Your task to perform on an android device: Check out the top rated books on Goodreads. Image 0: 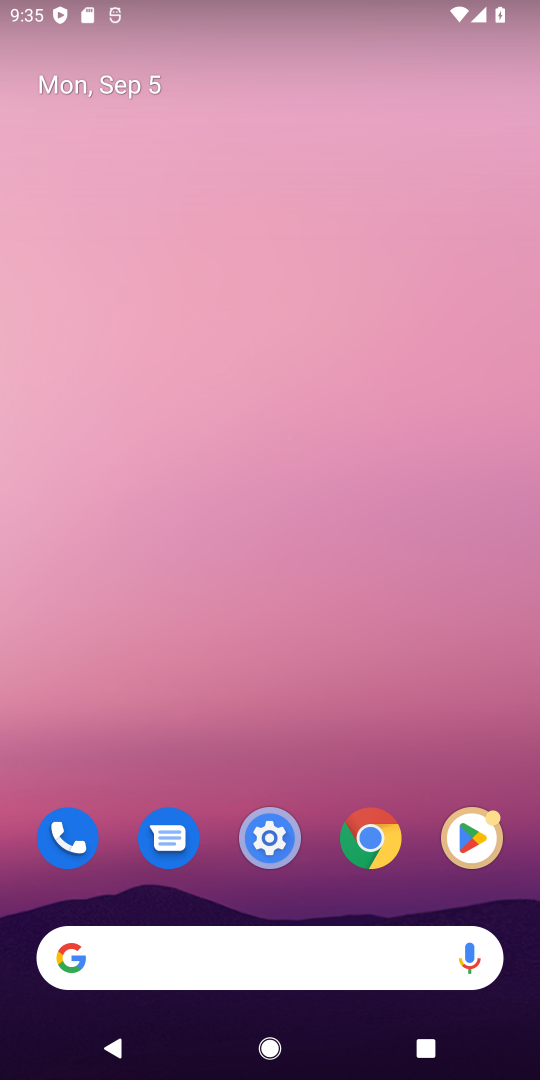
Step 0: click (285, 956)
Your task to perform on an android device: Check out the top rated books on Goodreads. Image 1: 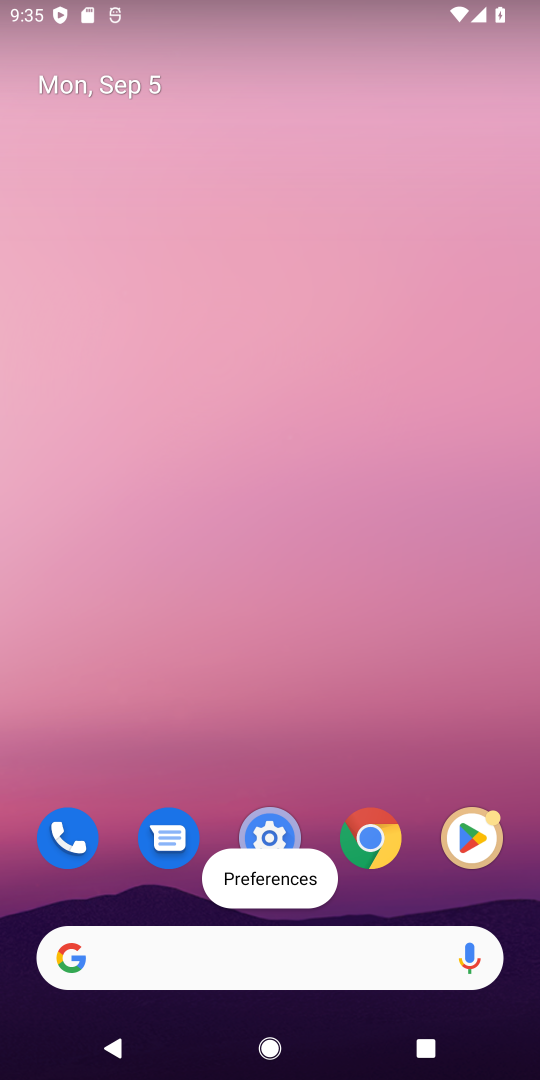
Step 1: click (284, 956)
Your task to perform on an android device: Check out the top rated books on Goodreads. Image 2: 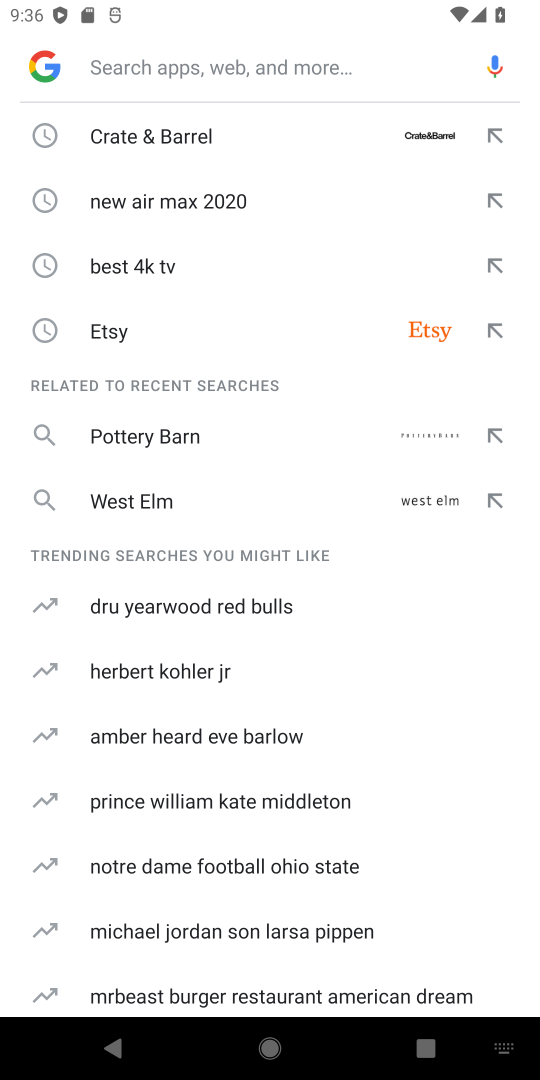
Step 2: type "Goodreads"
Your task to perform on an android device: Check out the top rated books on Goodreads. Image 3: 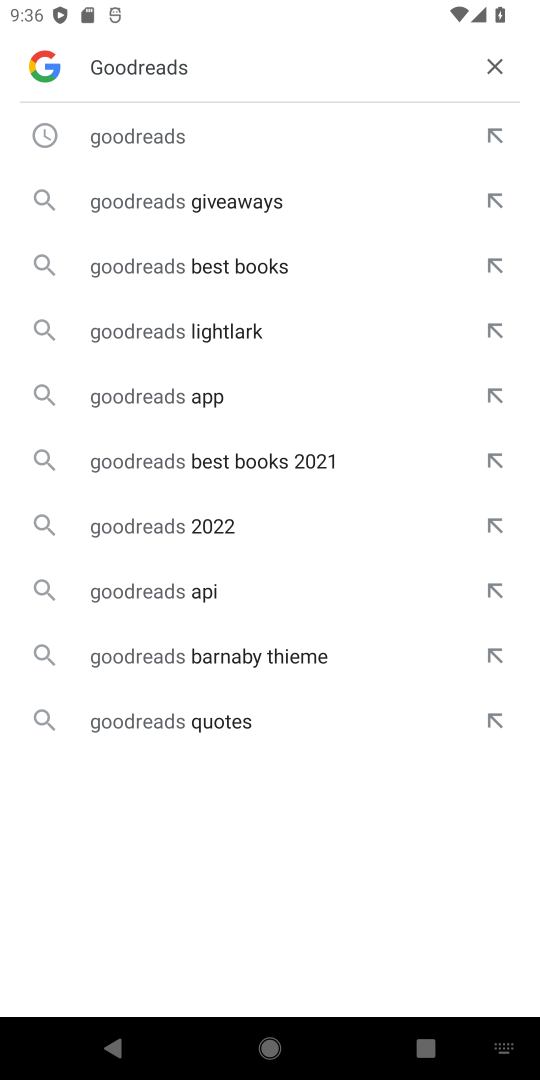
Step 3: click (107, 149)
Your task to perform on an android device: Check out the top rated books on Goodreads. Image 4: 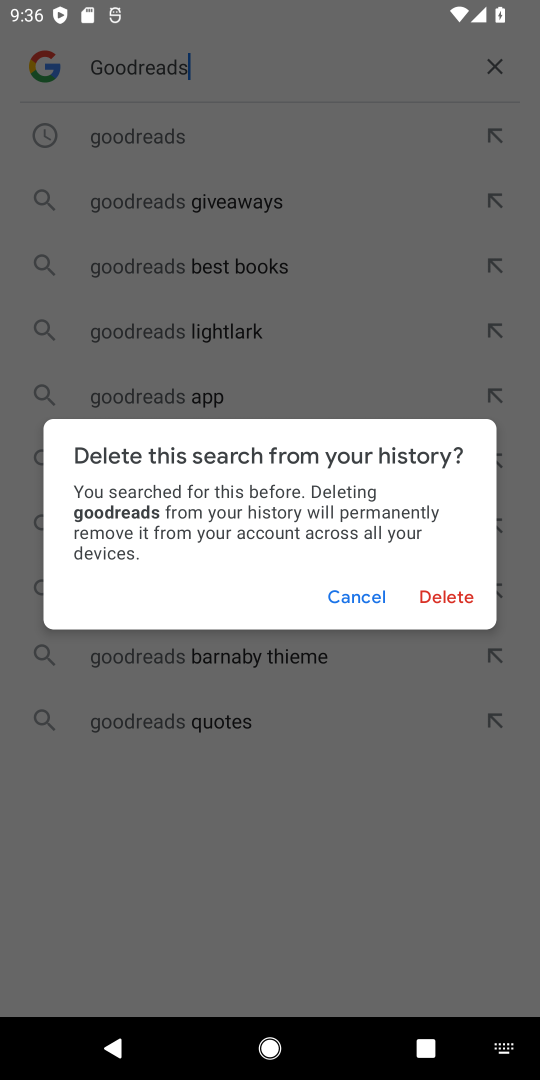
Step 4: click (375, 588)
Your task to perform on an android device: Check out the top rated books on Goodreads. Image 5: 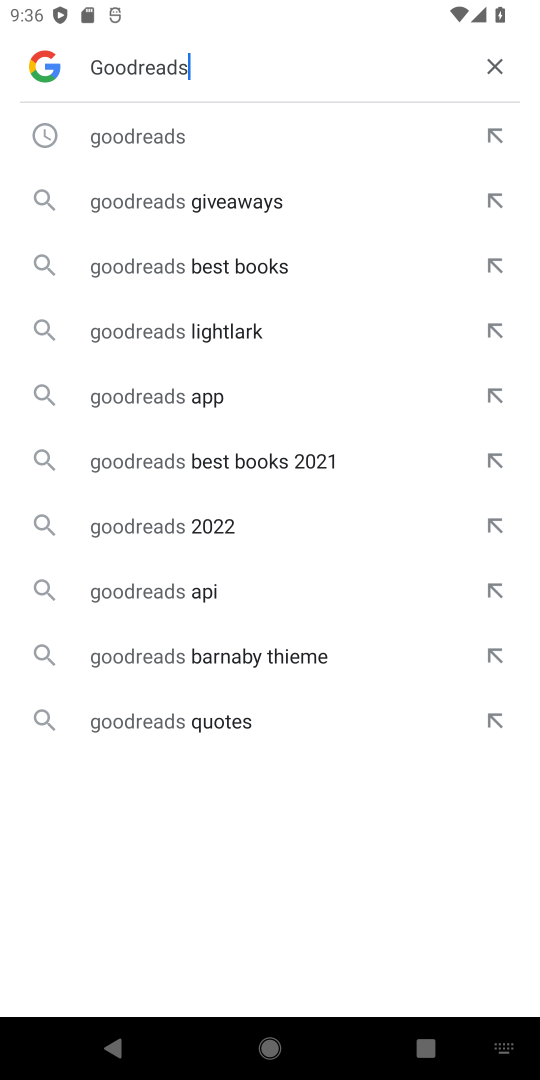
Step 5: click (180, 124)
Your task to perform on an android device: Check out the top rated books on Goodreads. Image 6: 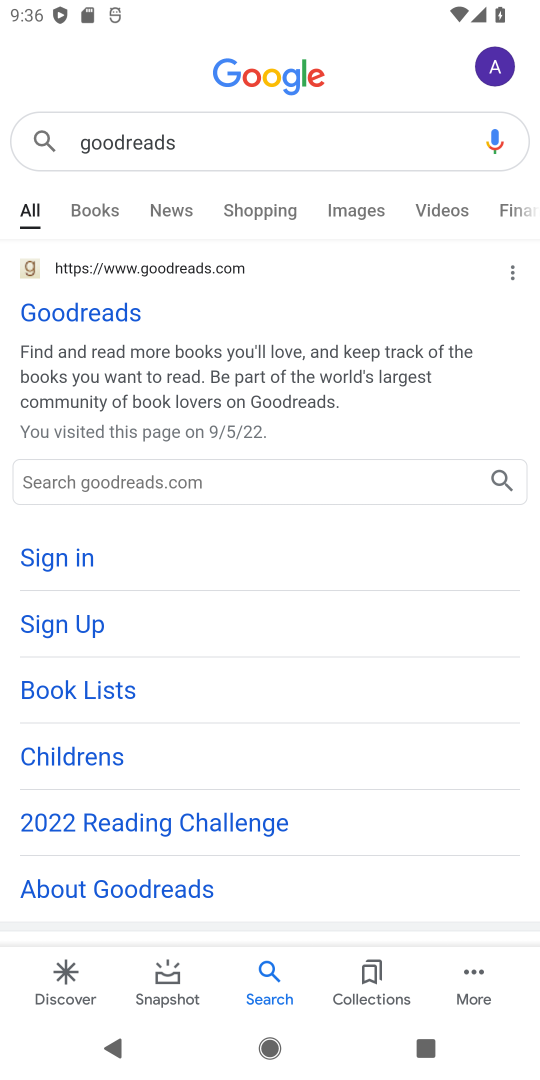
Step 6: click (88, 320)
Your task to perform on an android device: Check out the top rated books on Goodreads. Image 7: 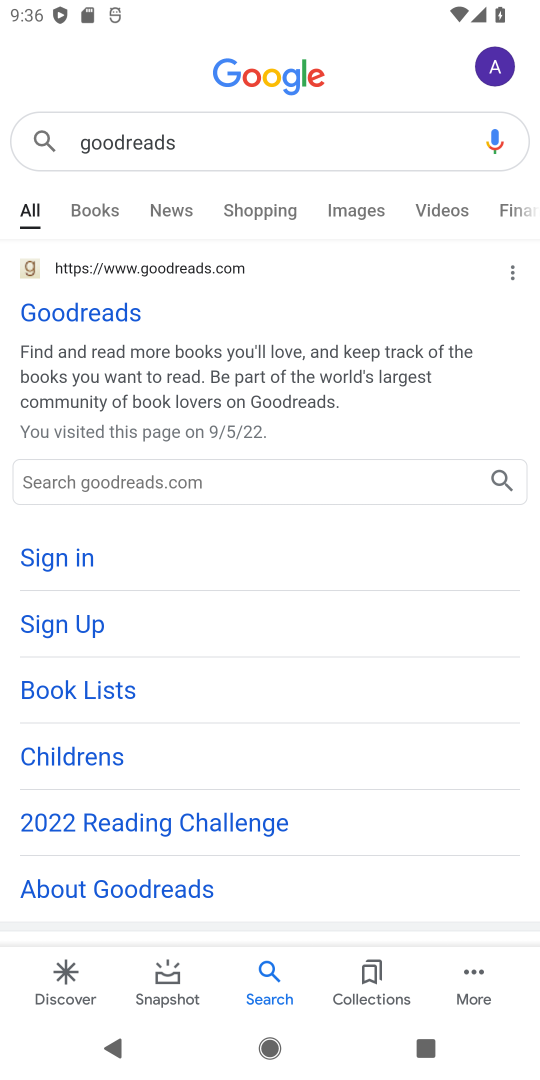
Step 7: click (88, 320)
Your task to perform on an android device: Check out the top rated books on Goodreads. Image 8: 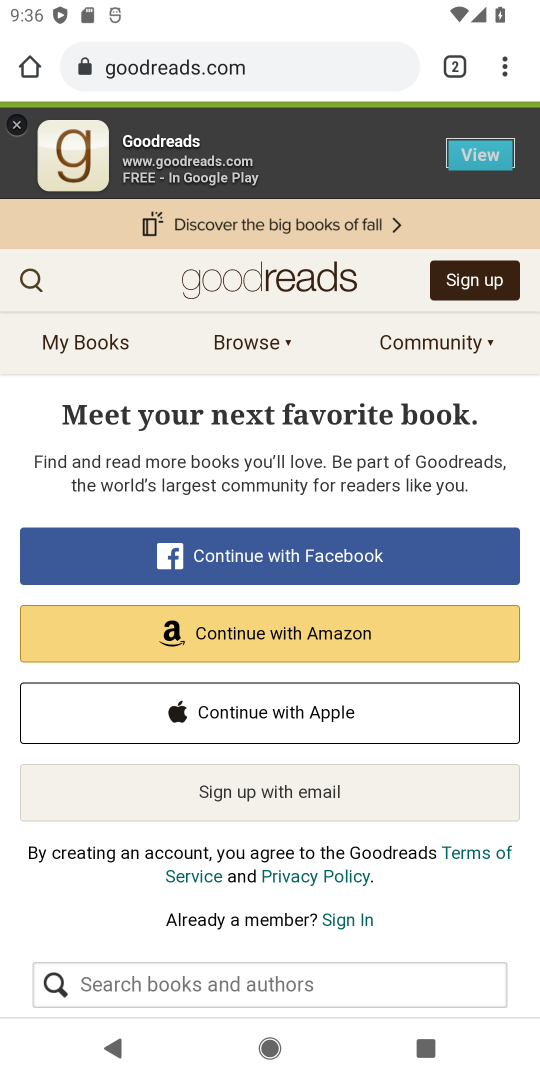
Step 8: click (23, 264)
Your task to perform on an android device: Check out the top rated books on Goodreads. Image 9: 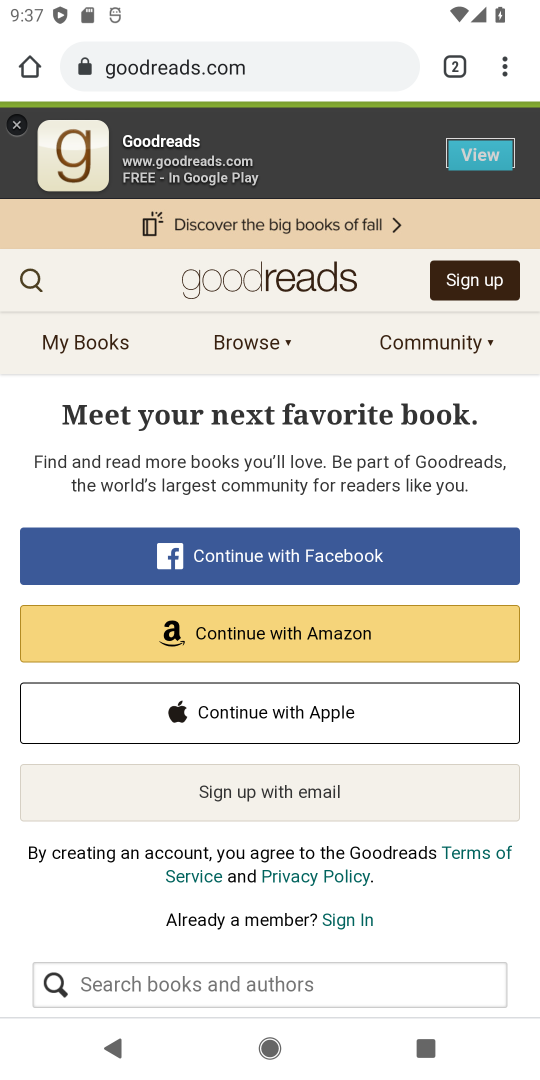
Step 9: click (34, 282)
Your task to perform on an android device: Check out the top rated books on Goodreads. Image 10: 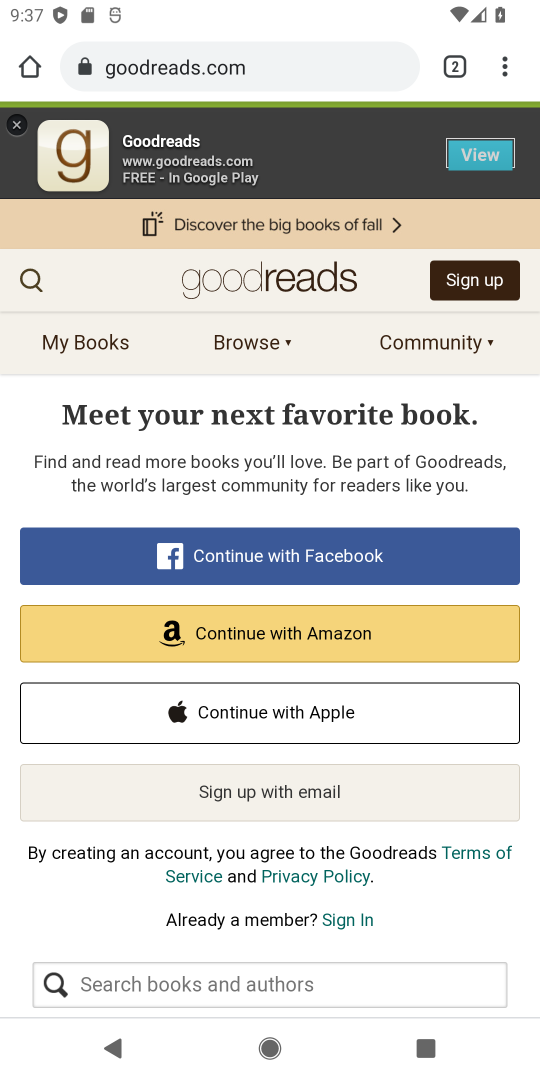
Step 10: click (44, 267)
Your task to perform on an android device: Check out the top rated books on Goodreads. Image 11: 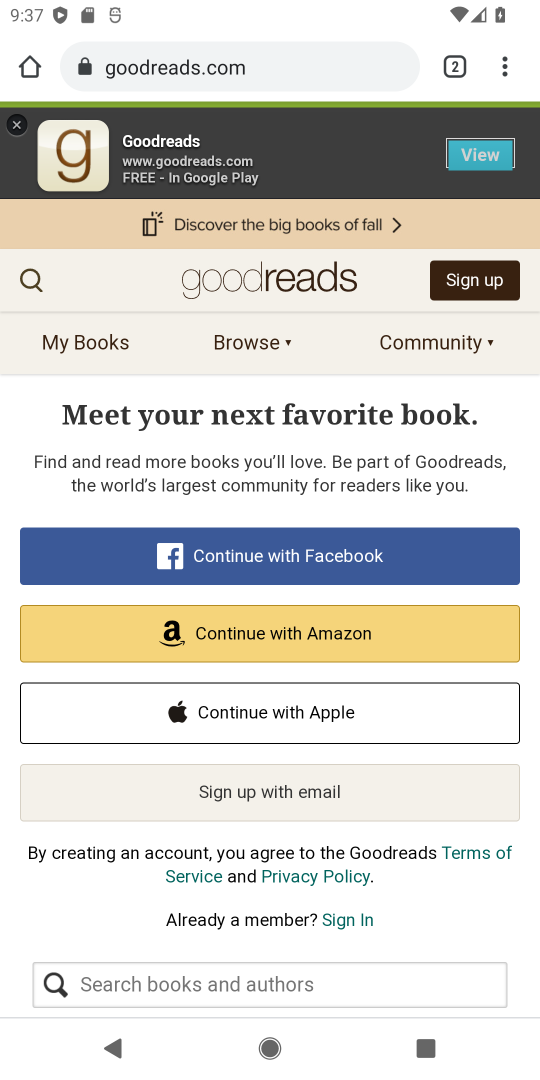
Step 11: click (45, 278)
Your task to perform on an android device: Check out the top rated books on Goodreads. Image 12: 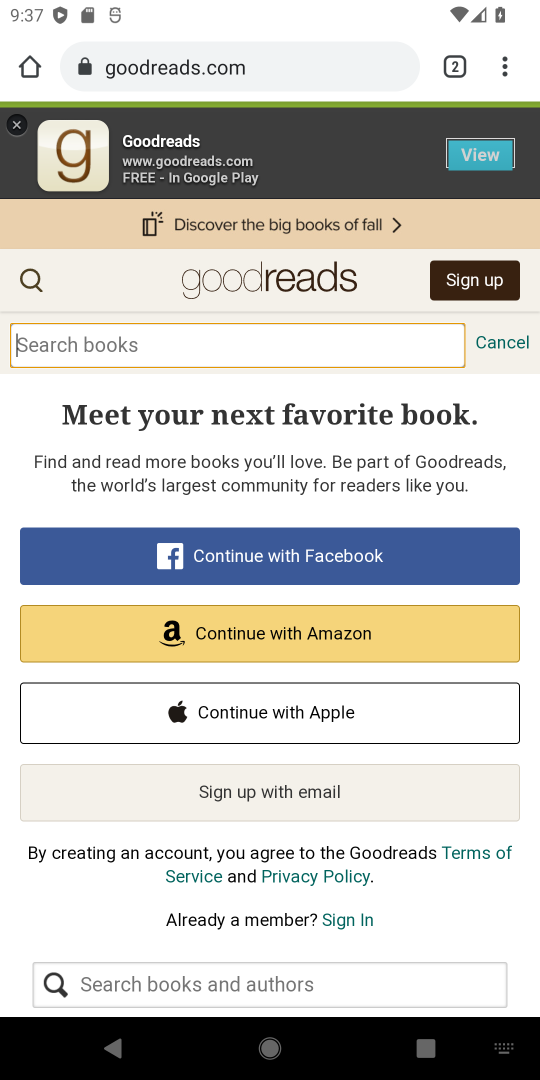
Step 12: type "top rated books"
Your task to perform on an android device: Check out the top rated books on Goodreads. Image 13: 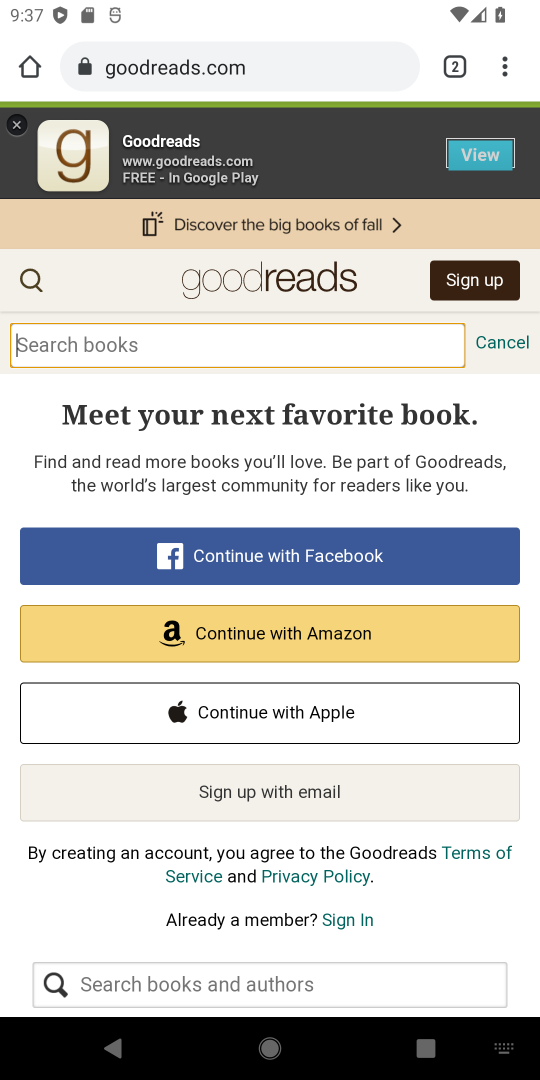
Step 13: type ""
Your task to perform on an android device: Check out the top rated books on Goodreads. Image 14: 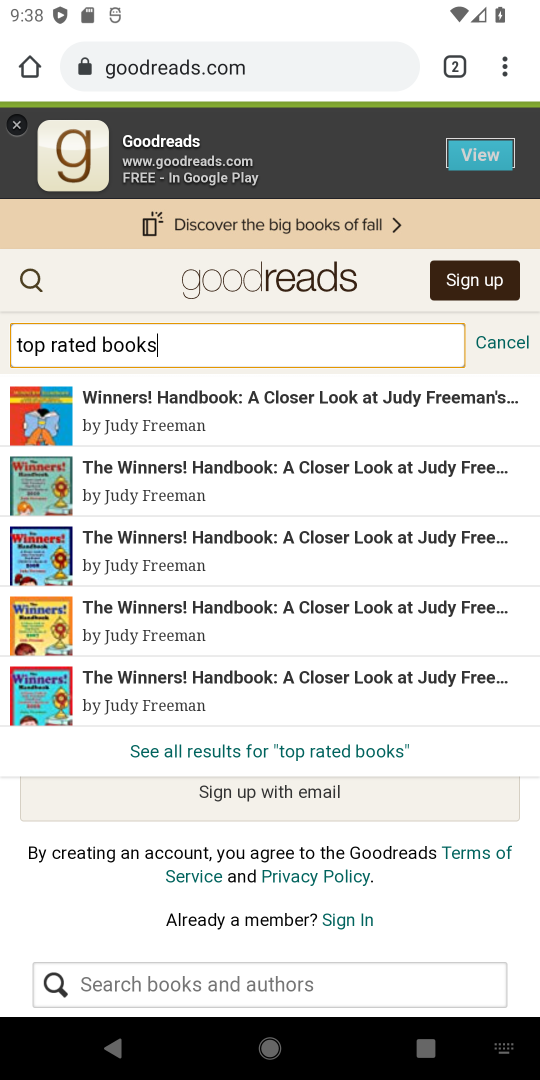
Step 14: task complete